Your task to perform on an android device: stop showing notifications on the lock screen Image 0: 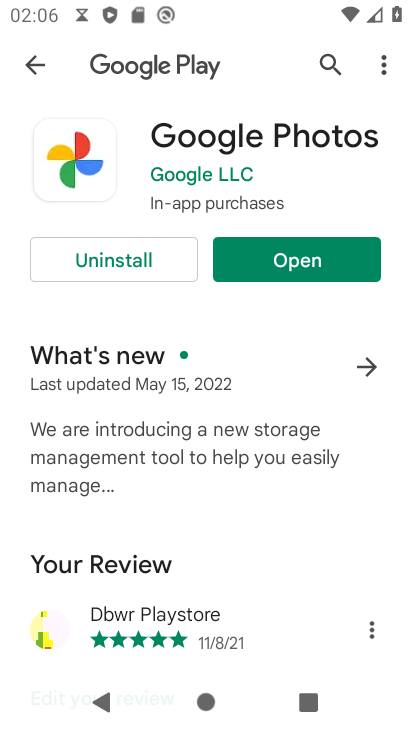
Step 0: press home button
Your task to perform on an android device: stop showing notifications on the lock screen Image 1: 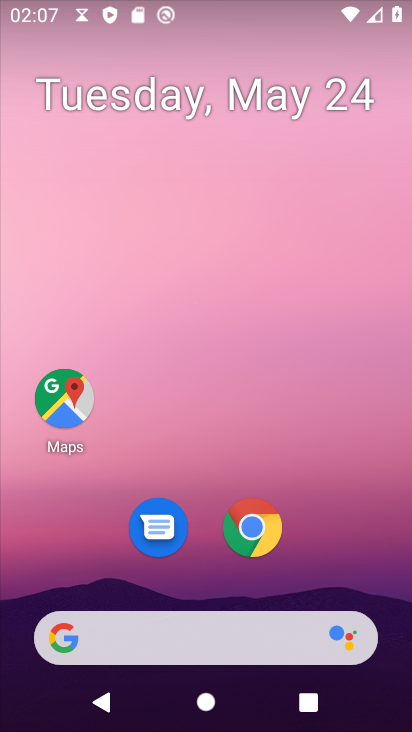
Step 1: drag from (172, 641) to (296, 59)
Your task to perform on an android device: stop showing notifications on the lock screen Image 2: 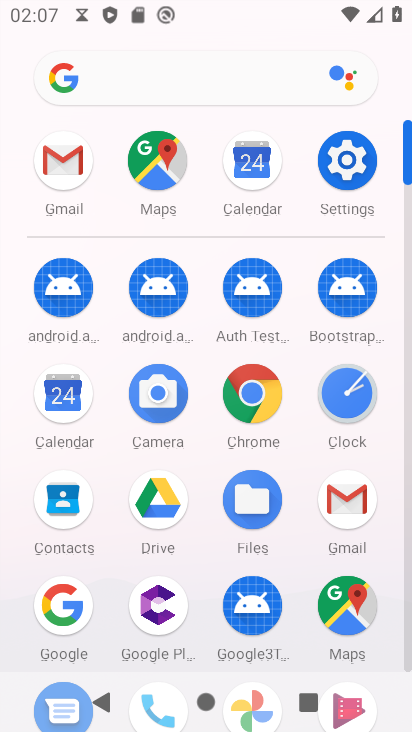
Step 2: click (339, 166)
Your task to perform on an android device: stop showing notifications on the lock screen Image 3: 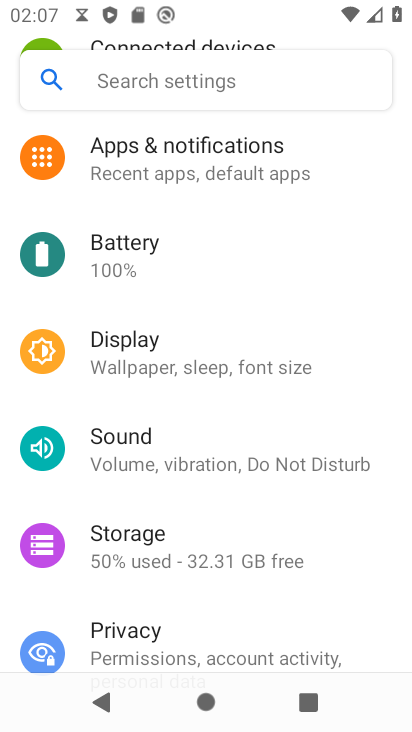
Step 3: click (225, 164)
Your task to perform on an android device: stop showing notifications on the lock screen Image 4: 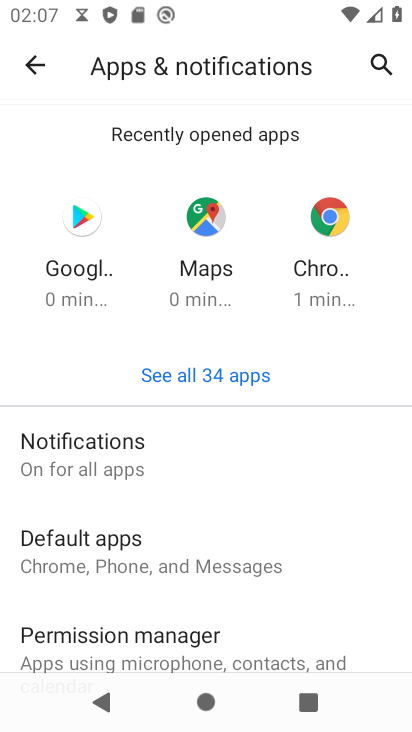
Step 4: click (75, 456)
Your task to perform on an android device: stop showing notifications on the lock screen Image 5: 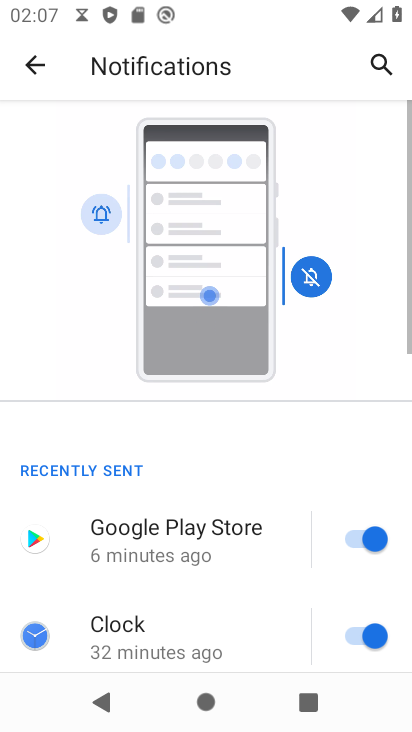
Step 5: drag from (192, 577) to (313, 83)
Your task to perform on an android device: stop showing notifications on the lock screen Image 6: 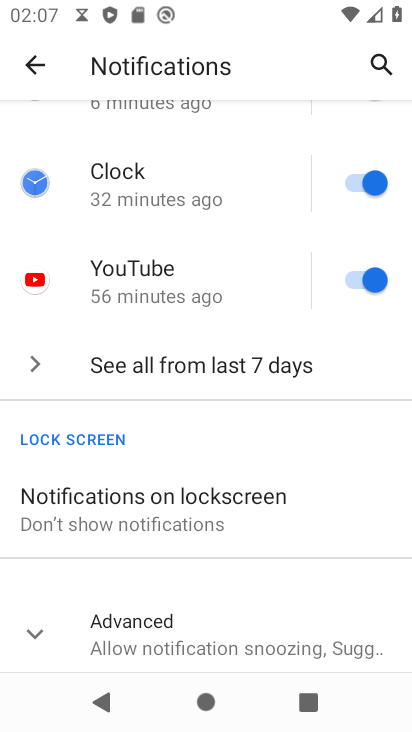
Step 6: click (223, 496)
Your task to perform on an android device: stop showing notifications on the lock screen Image 7: 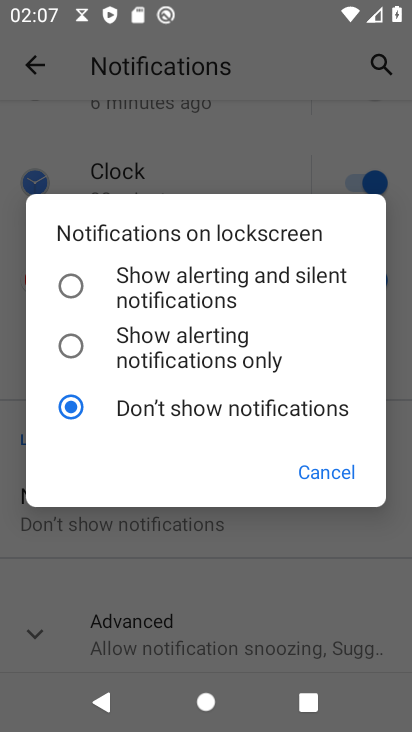
Step 7: task complete